Your task to perform on an android device: Open Google Chrome and click the shortcut for Amazon.com Image 0: 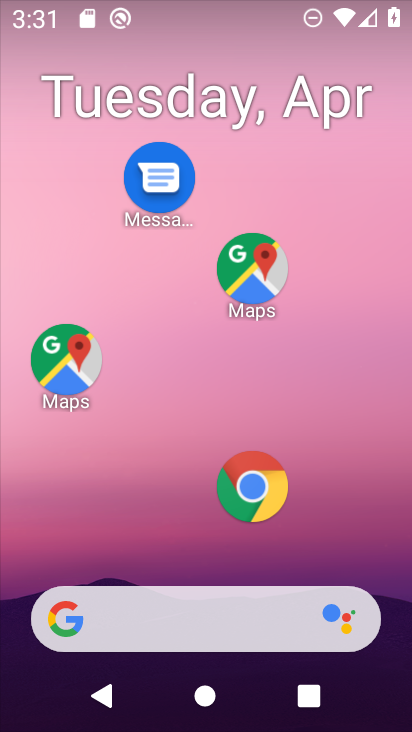
Step 0: click (254, 501)
Your task to perform on an android device: Open Google Chrome and click the shortcut for Amazon.com Image 1: 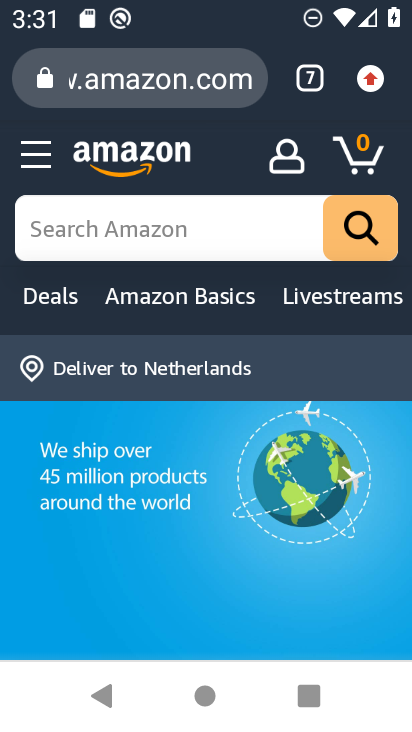
Step 1: click (311, 80)
Your task to perform on an android device: Open Google Chrome and click the shortcut for Amazon.com Image 2: 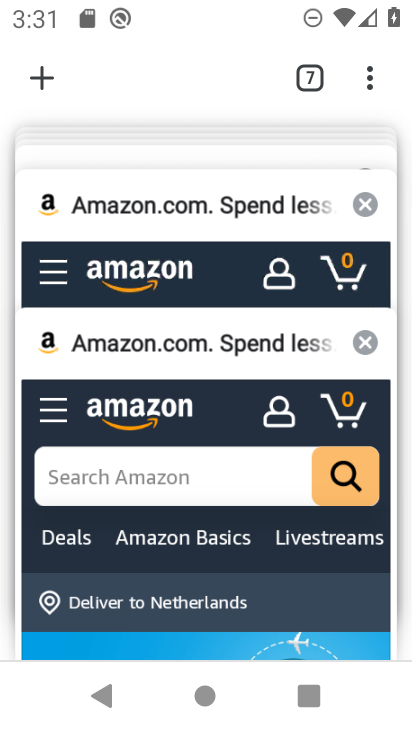
Step 2: click (54, 84)
Your task to perform on an android device: Open Google Chrome and click the shortcut for Amazon.com Image 3: 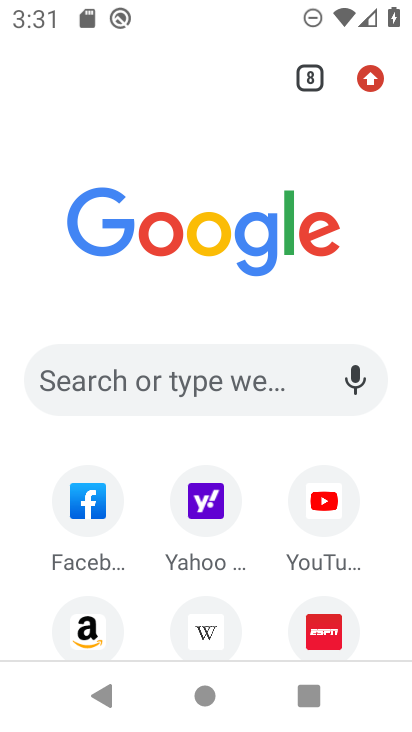
Step 3: click (109, 626)
Your task to perform on an android device: Open Google Chrome and click the shortcut for Amazon.com Image 4: 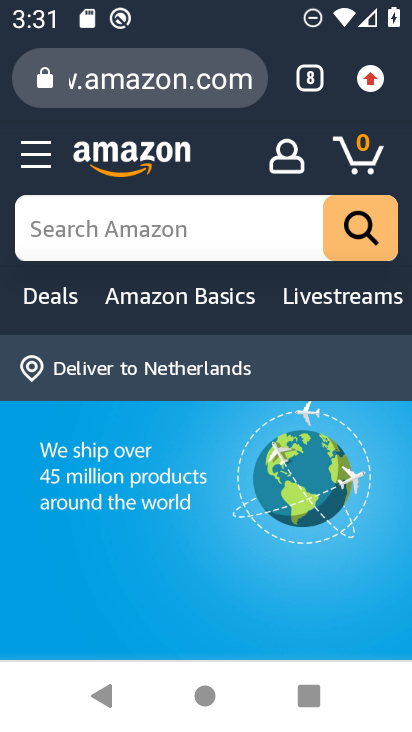
Step 4: task complete